Your task to perform on an android device: Turn on the flashlight Image 0: 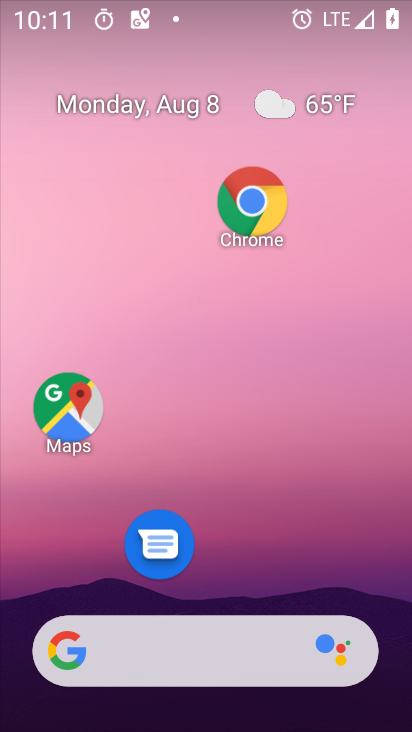
Step 0: press home button
Your task to perform on an android device: Turn on the flashlight Image 1: 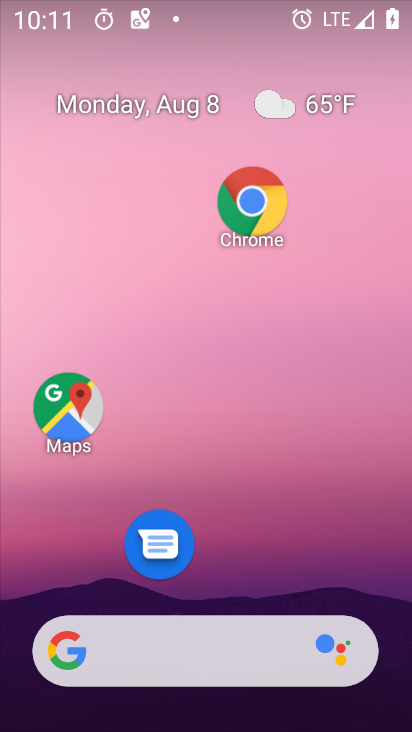
Step 1: drag from (218, 583) to (207, 71)
Your task to perform on an android device: Turn on the flashlight Image 2: 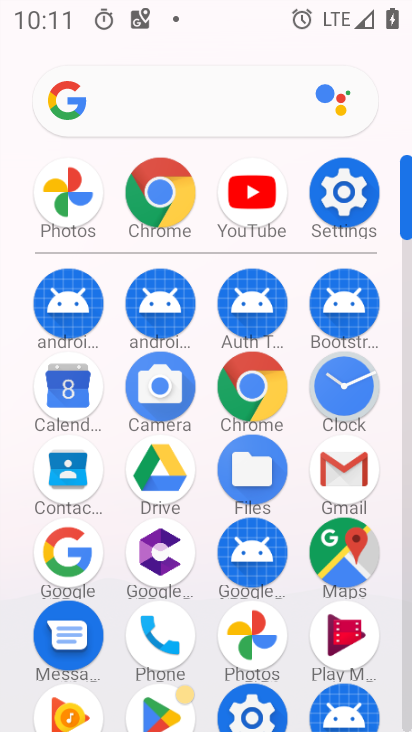
Step 2: click (341, 183)
Your task to perform on an android device: Turn on the flashlight Image 3: 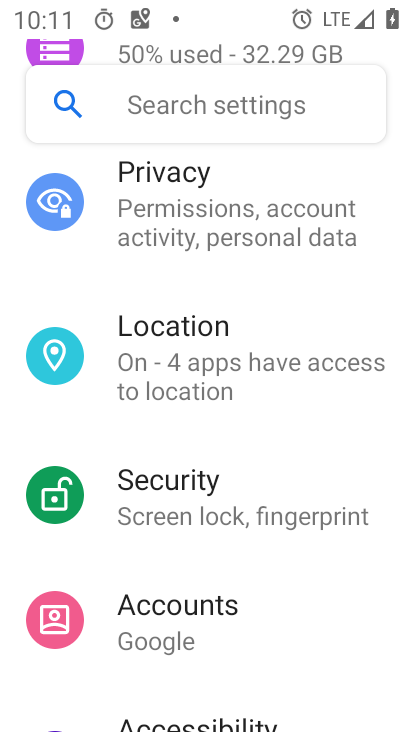
Step 3: click (174, 100)
Your task to perform on an android device: Turn on the flashlight Image 4: 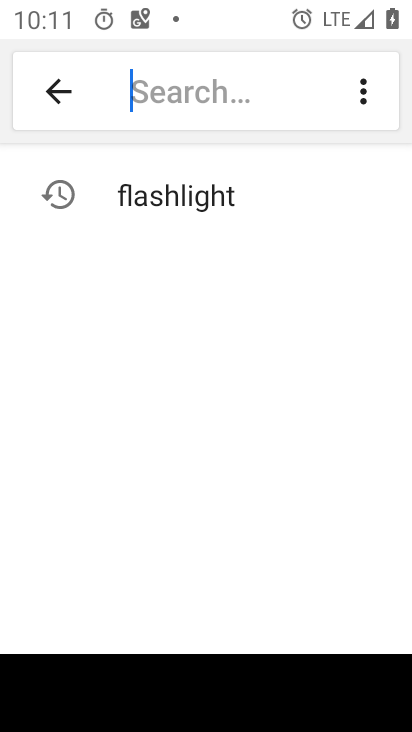
Step 4: click (258, 194)
Your task to perform on an android device: Turn on the flashlight Image 5: 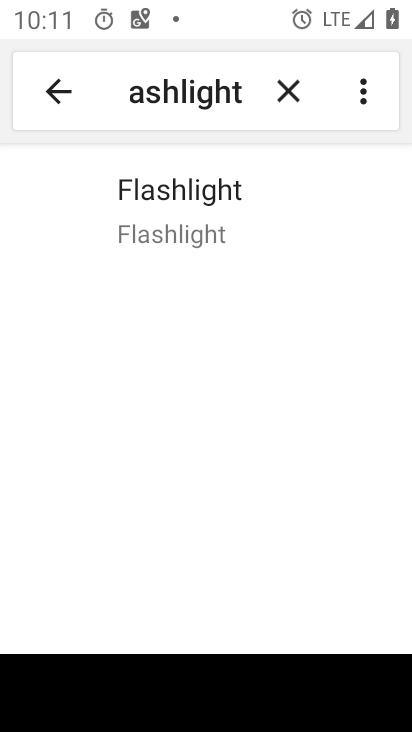
Step 5: click (229, 214)
Your task to perform on an android device: Turn on the flashlight Image 6: 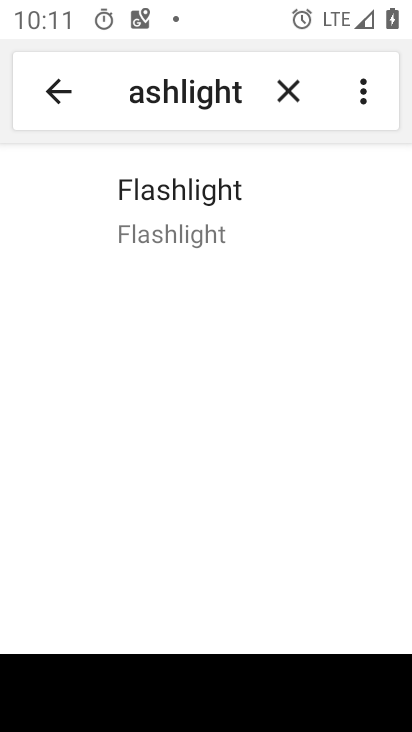
Step 6: click (240, 220)
Your task to perform on an android device: Turn on the flashlight Image 7: 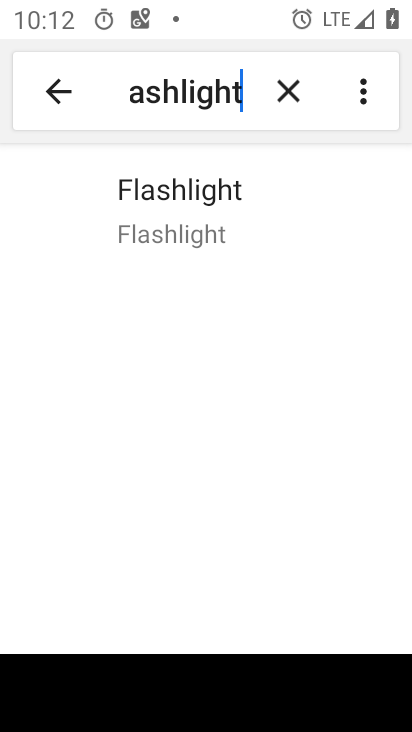
Step 7: task complete